Your task to perform on an android device: toggle sleep mode Image 0: 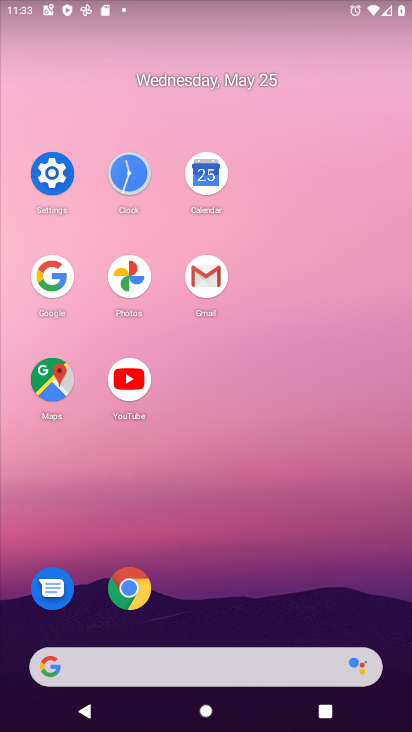
Step 0: click (58, 182)
Your task to perform on an android device: toggle sleep mode Image 1: 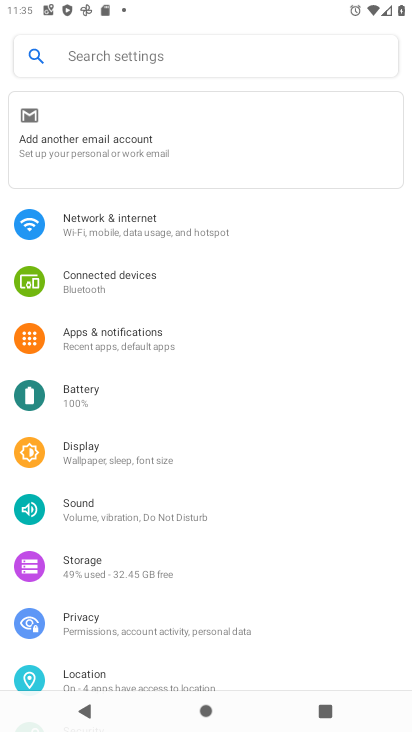
Step 1: click (168, 471)
Your task to perform on an android device: toggle sleep mode Image 2: 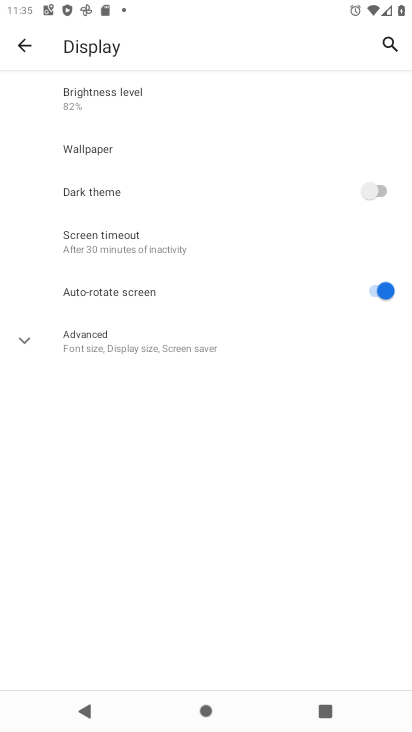
Step 2: click (171, 249)
Your task to perform on an android device: toggle sleep mode Image 3: 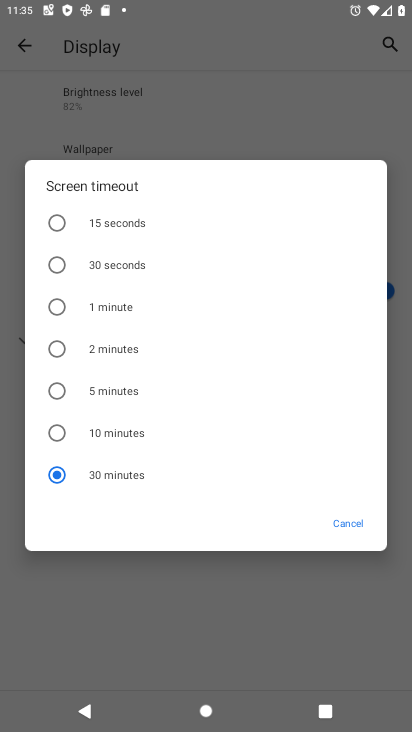
Step 3: click (141, 225)
Your task to perform on an android device: toggle sleep mode Image 4: 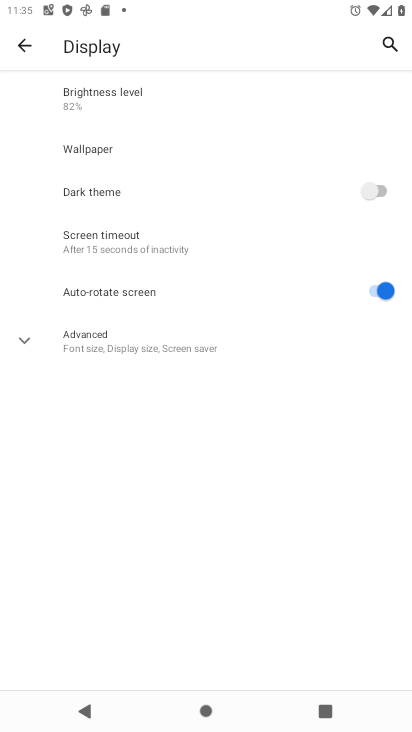
Step 4: task complete